Your task to perform on an android device: Is it going to rain today? Image 0: 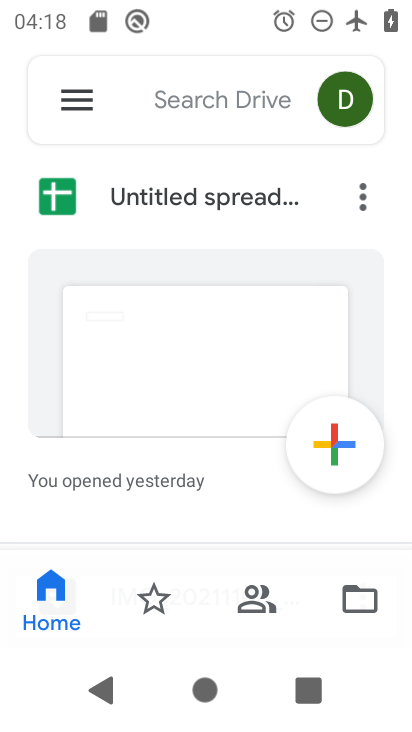
Step 0: press home button
Your task to perform on an android device: Is it going to rain today? Image 1: 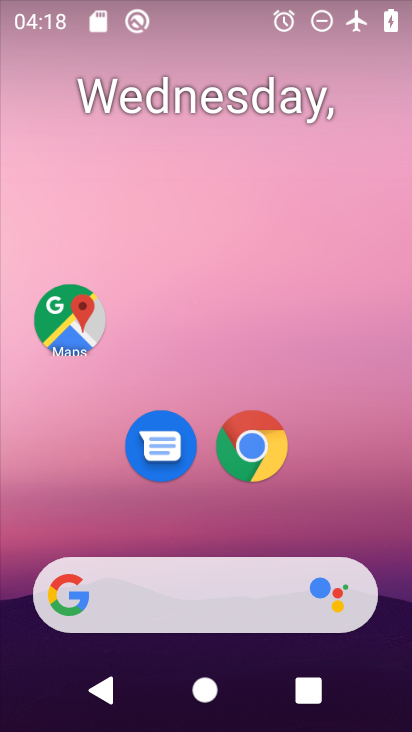
Step 1: drag from (213, 534) to (175, 184)
Your task to perform on an android device: Is it going to rain today? Image 2: 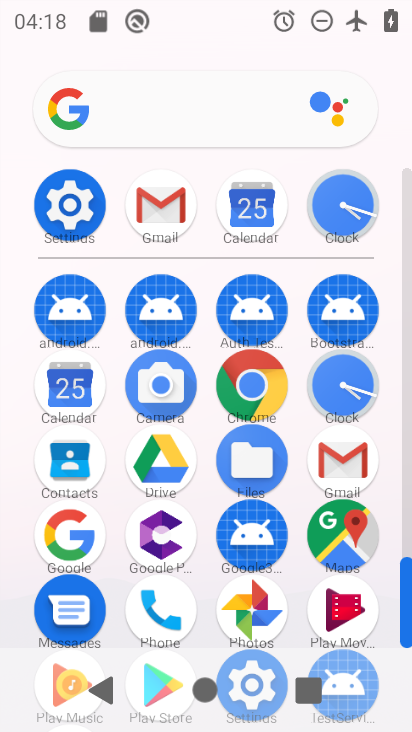
Step 2: click (67, 541)
Your task to perform on an android device: Is it going to rain today? Image 3: 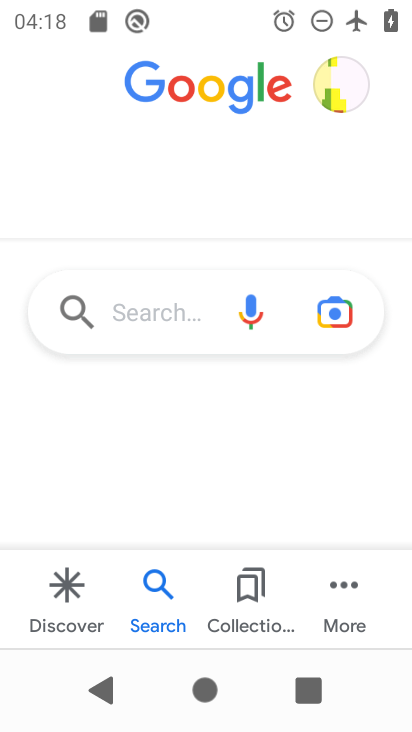
Step 3: click (169, 304)
Your task to perform on an android device: Is it going to rain today? Image 4: 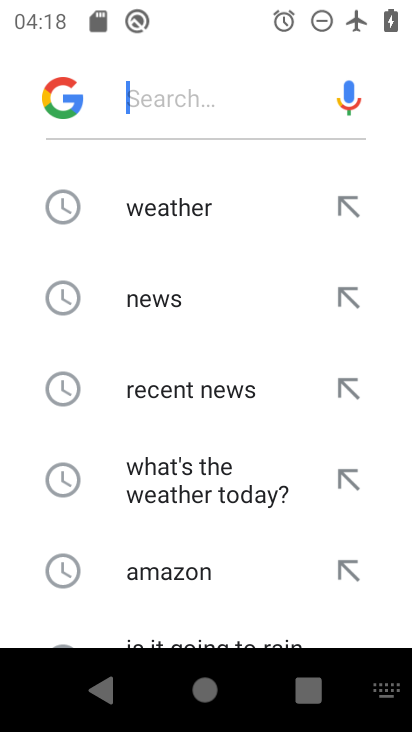
Step 4: click (143, 216)
Your task to perform on an android device: Is it going to rain today? Image 5: 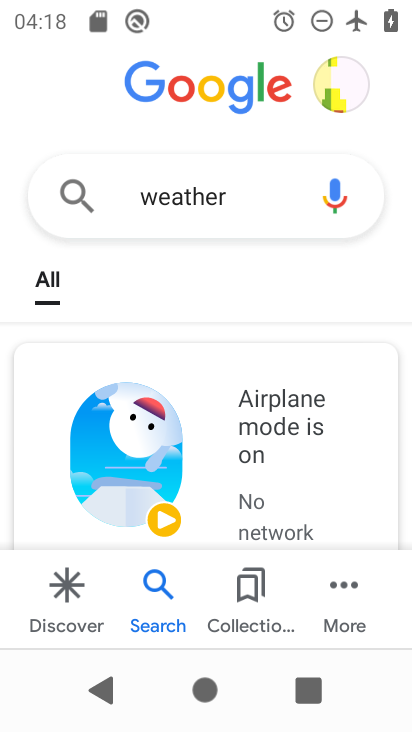
Step 5: task complete